Your task to perform on an android device: Go to Yahoo.com Image 0: 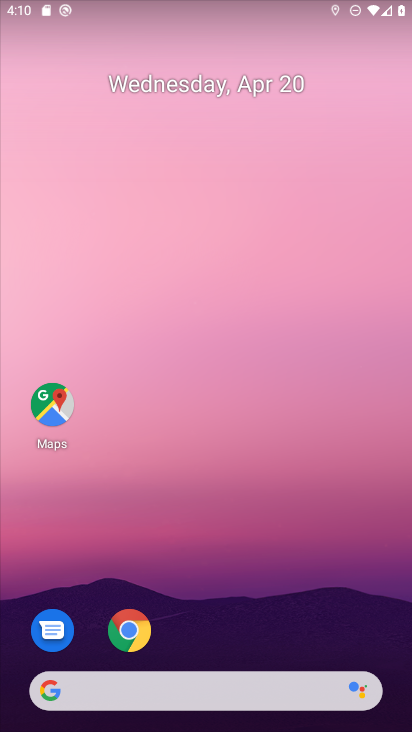
Step 0: drag from (220, 611) to (253, 20)
Your task to perform on an android device: Go to Yahoo.com Image 1: 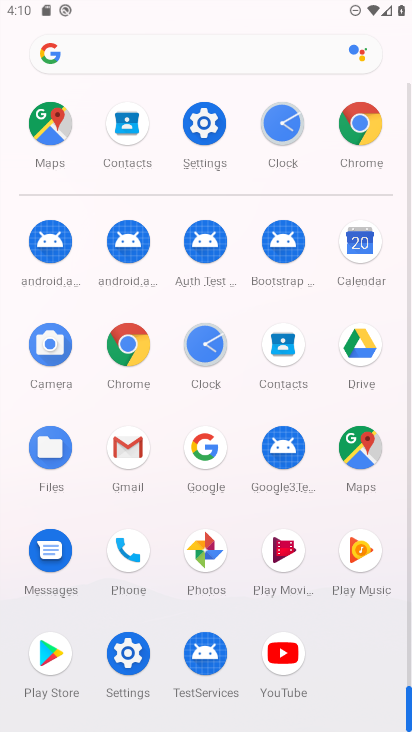
Step 1: click (136, 351)
Your task to perform on an android device: Go to Yahoo.com Image 2: 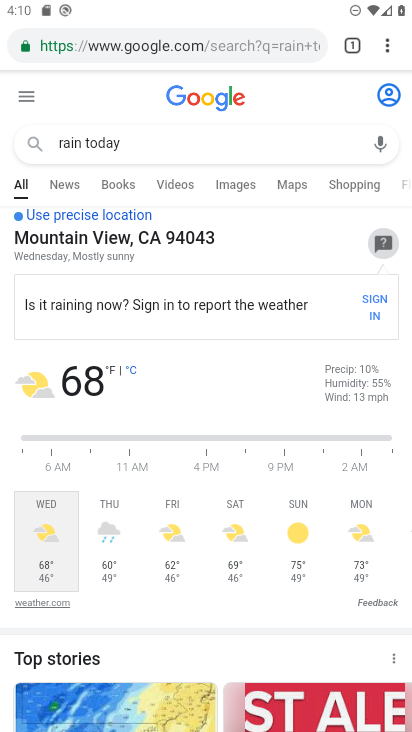
Step 2: click (165, 152)
Your task to perform on an android device: Go to Yahoo.com Image 3: 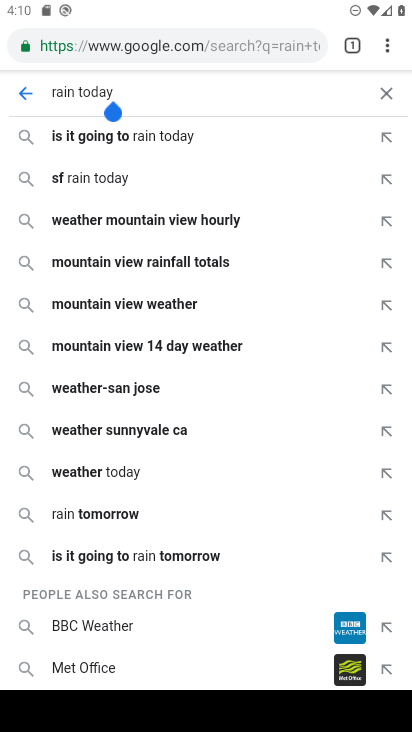
Step 3: click (309, 46)
Your task to perform on an android device: Go to Yahoo.com Image 4: 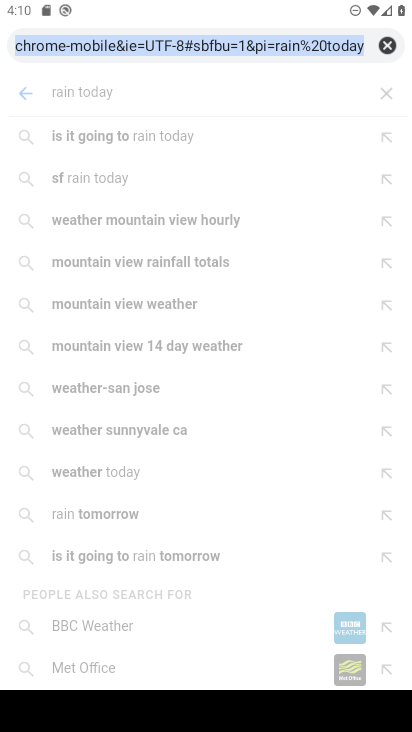
Step 4: click (385, 42)
Your task to perform on an android device: Go to Yahoo.com Image 5: 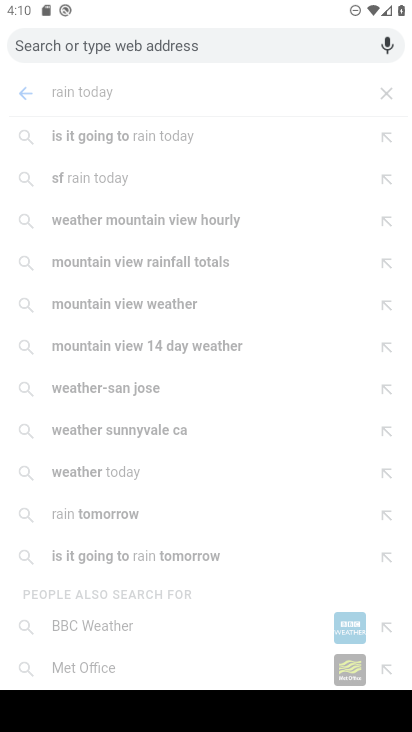
Step 5: type "yahoo.com"
Your task to perform on an android device: Go to Yahoo.com Image 6: 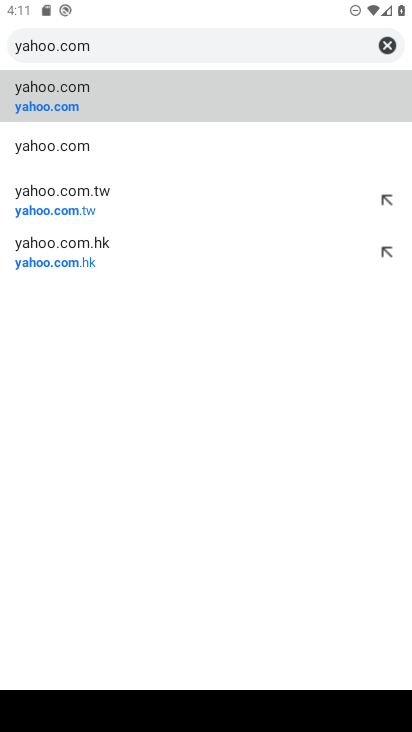
Step 6: click (256, 107)
Your task to perform on an android device: Go to Yahoo.com Image 7: 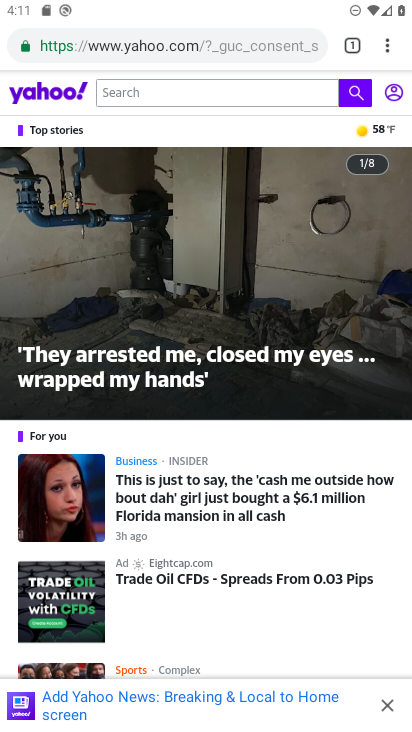
Step 7: task complete